Your task to perform on an android device: What's on my calendar today? Image 0: 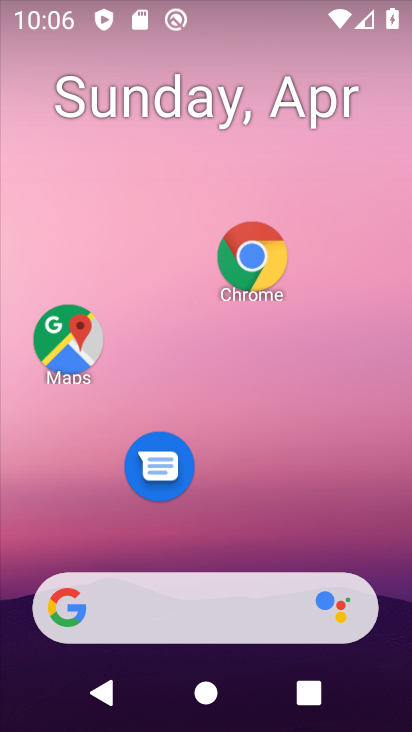
Step 0: drag from (244, 560) to (244, 162)
Your task to perform on an android device: What's on my calendar today? Image 1: 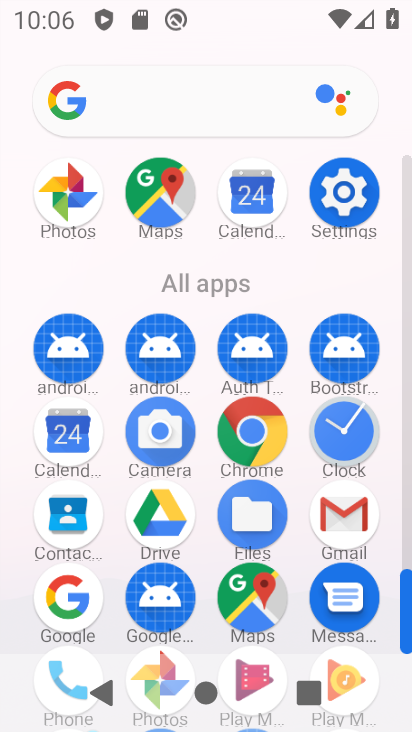
Step 1: click (64, 437)
Your task to perform on an android device: What's on my calendar today? Image 2: 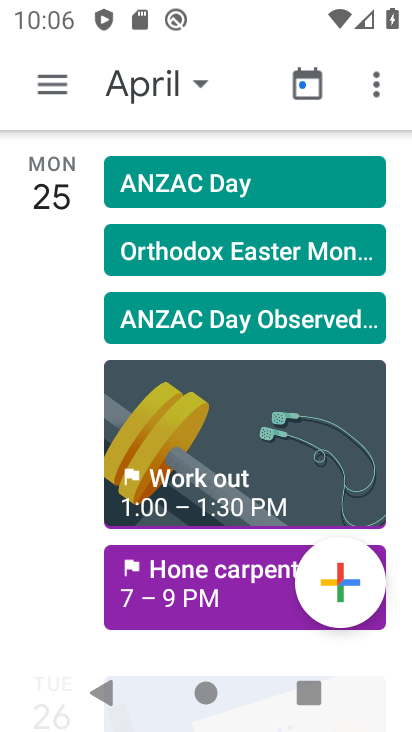
Step 2: click (146, 79)
Your task to perform on an android device: What's on my calendar today? Image 3: 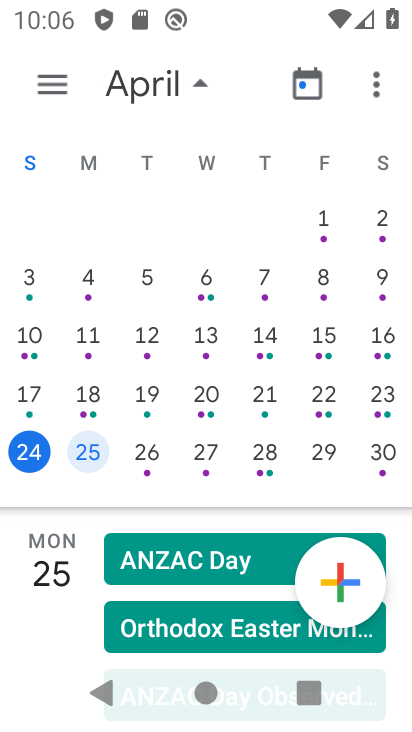
Step 3: click (24, 446)
Your task to perform on an android device: What's on my calendar today? Image 4: 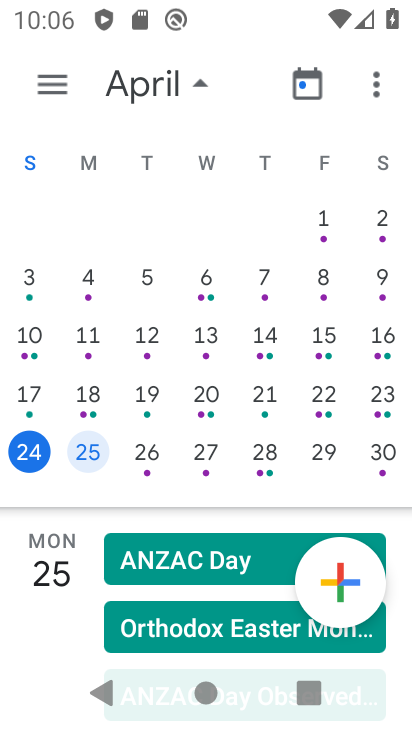
Step 4: click (25, 447)
Your task to perform on an android device: What's on my calendar today? Image 5: 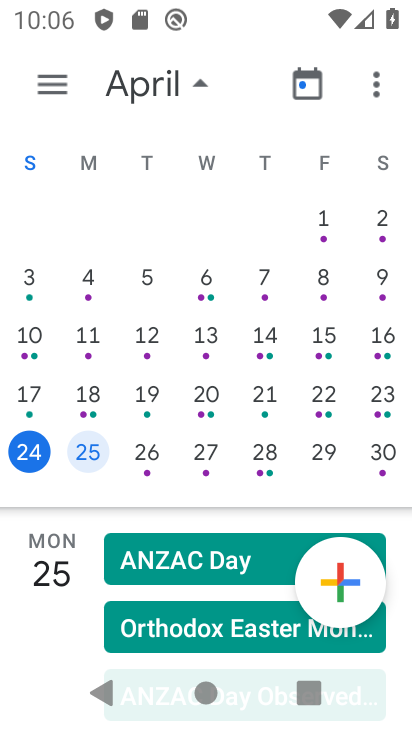
Step 5: click (30, 453)
Your task to perform on an android device: What's on my calendar today? Image 6: 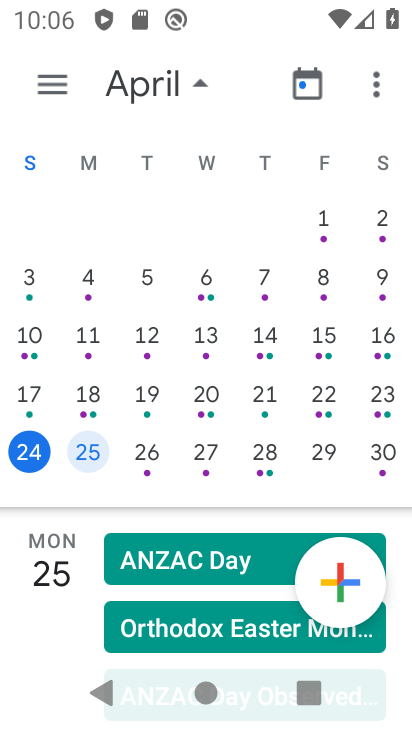
Step 6: click (36, 453)
Your task to perform on an android device: What's on my calendar today? Image 7: 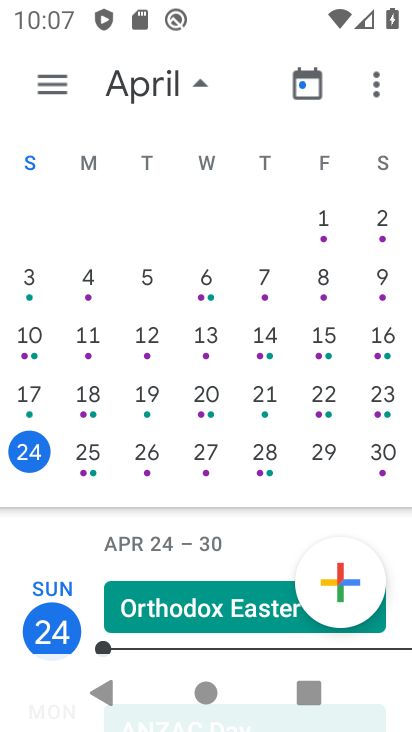
Step 7: task complete